Your task to perform on an android device: Go to ESPN.com Image 0: 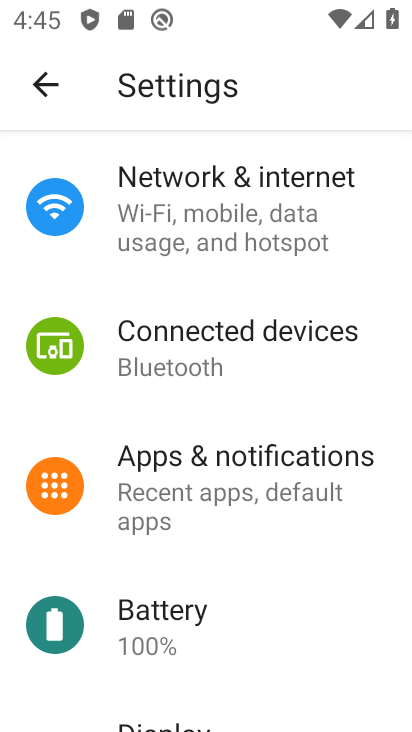
Step 0: press back button
Your task to perform on an android device: Go to ESPN.com Image 1: 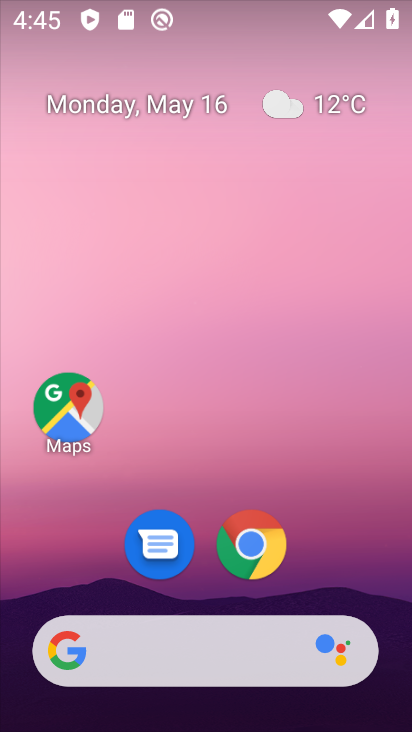
Step 1: click (250, 542)
Your task to perform on an android device: Go to ESPN.com Image 2: 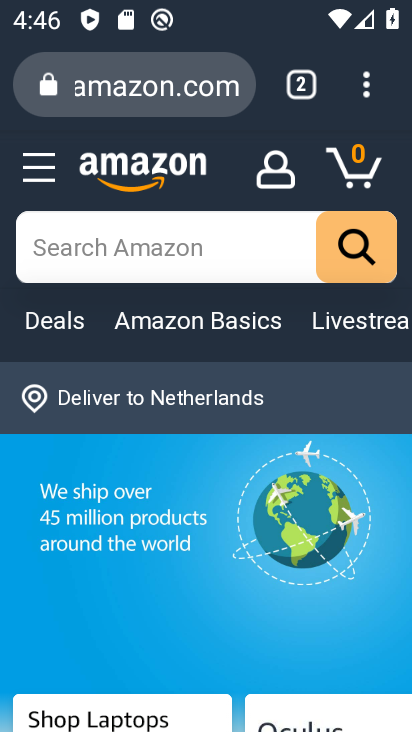
Step 2: click (368, 89)
Your task to perform on an android device: Go to ESPN.com Image 3: 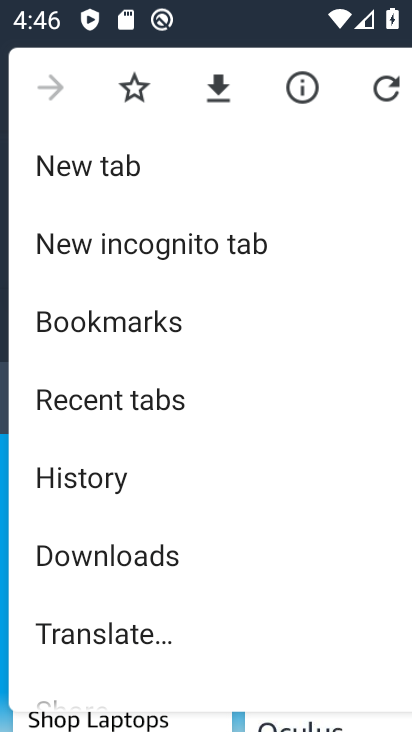
Step 3: click (331, 39)
Your task to perform on an android device: Go to ESPN.com Image 4: 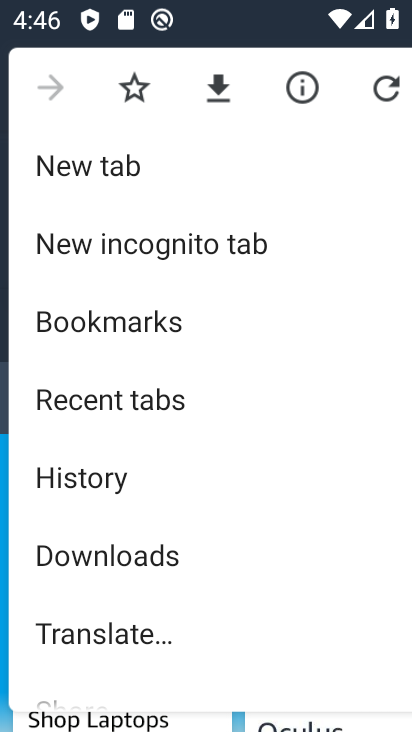
Step 4: click (127, 167)
Your task to perform on an android device: Go to ESPN.com Image 5: 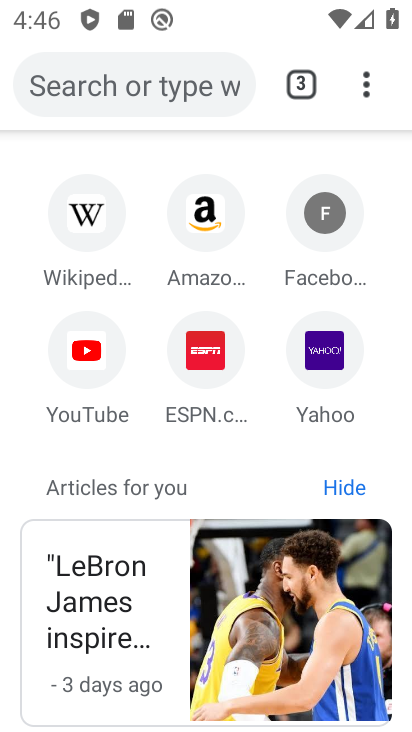
Step 5: click (156, 90)
Your task to perform on an android device: Go to ESPN.com Image 6: 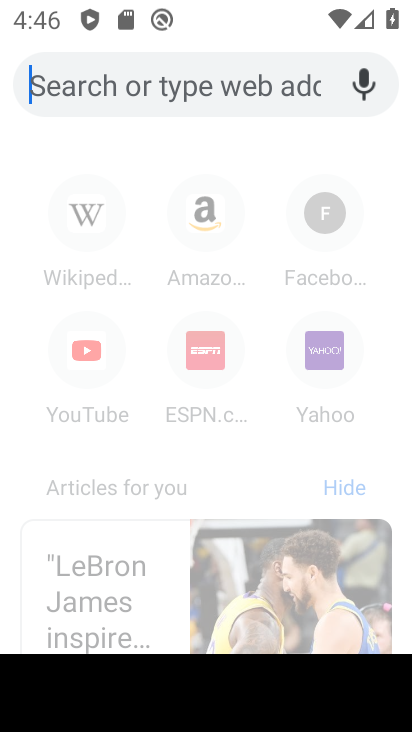
Step 6: type "ESPN.com"
Your task to perform on an android device: Go to ESPN.com Image 7: 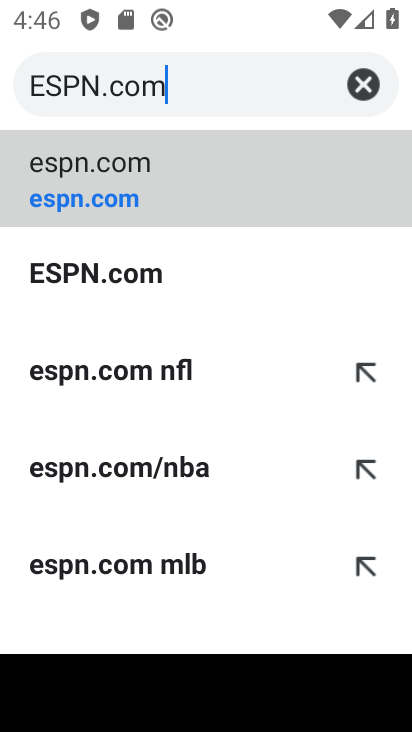
Step 7: click (129, 270)
Your task to perform on an android device: Go to ESPN.com Image 8: 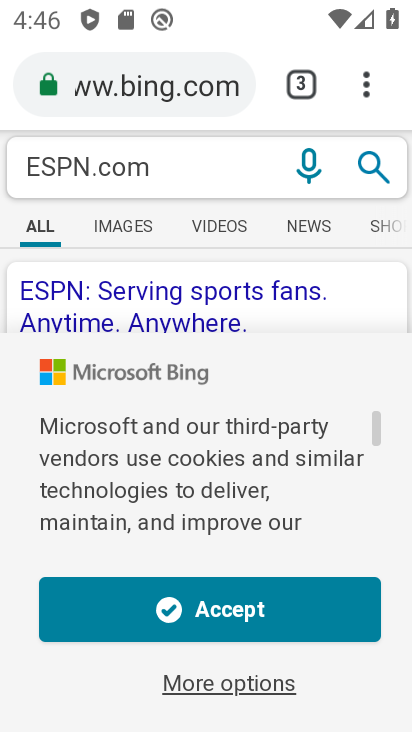
Step 8: click (131, 296)
Your task to perform on an android device: Go to ESPN.com Image 9: 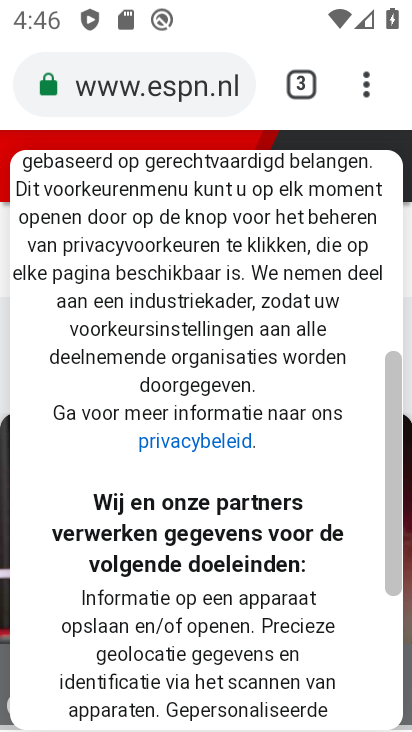
Step 9: task complete